Your task to perform on an android device: clear history in the chrome app Image 0: 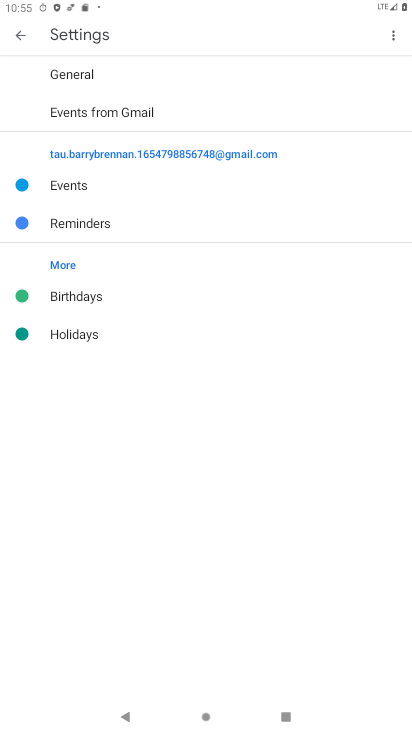
Step 0: click (23, 36)
Your task to perform on an android device: clear history in the chrome app Image 1: 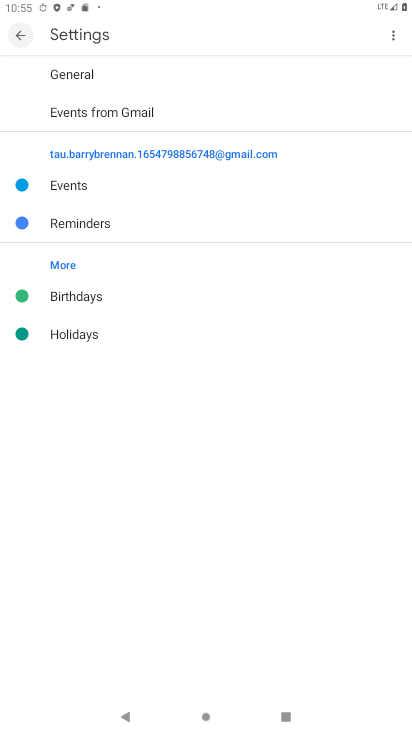
Step 1: click (23, 36)
Your task to perform on an android device: clear history in the chrome app Image 2: 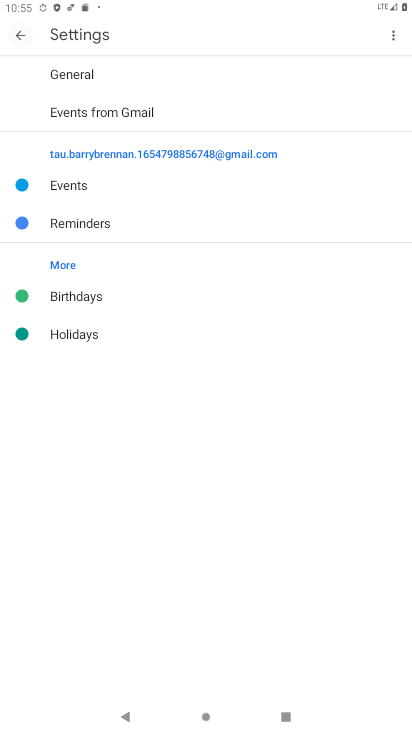
Step 2: click (11, 34)
Your task to perform on an android device: clear history in the chrome app Image 3: 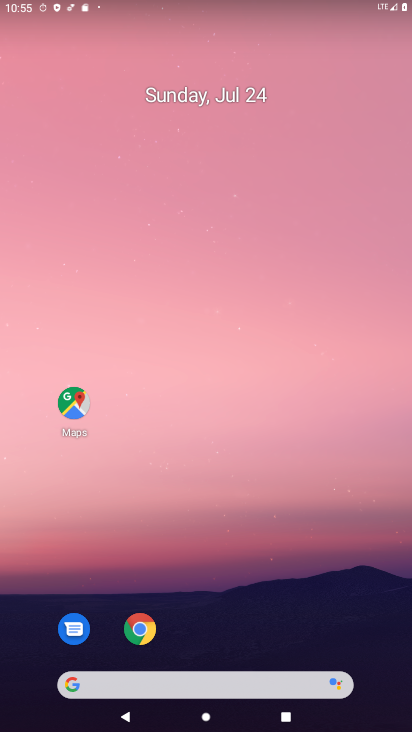
Step 3: click (199, 63)
Your task to perform on an android device: clear history in the chrome app Image 4: 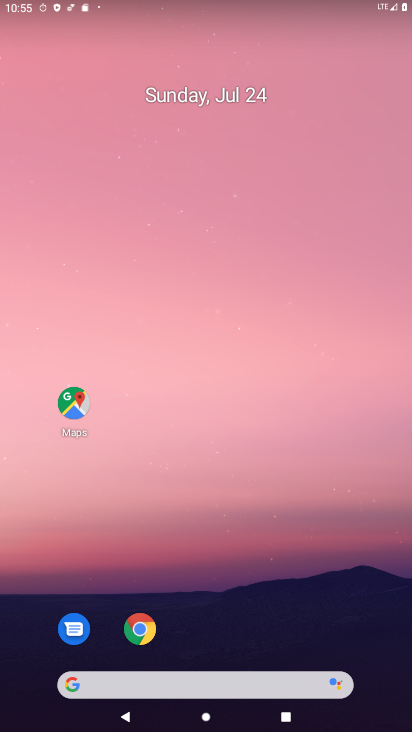
Step 4: drag from (240, 480) to (239, 32)
Your task to perform on an android device: clear history in the chrome app Image 5: 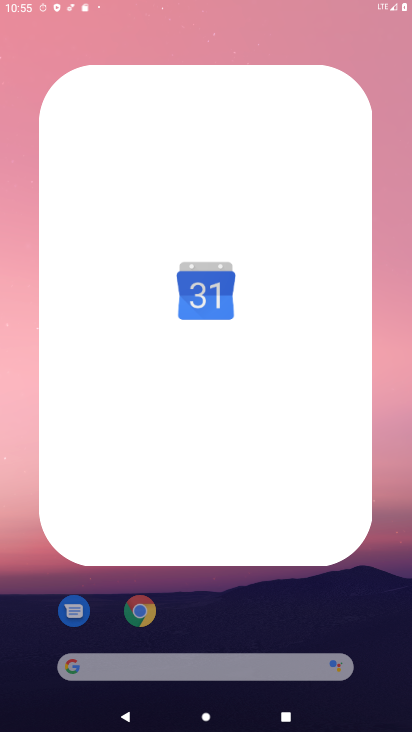
Step 5: drag from (237, 524) to (154, 107)
Your task to perform on an android device: clear history in the chrome app Image 6: 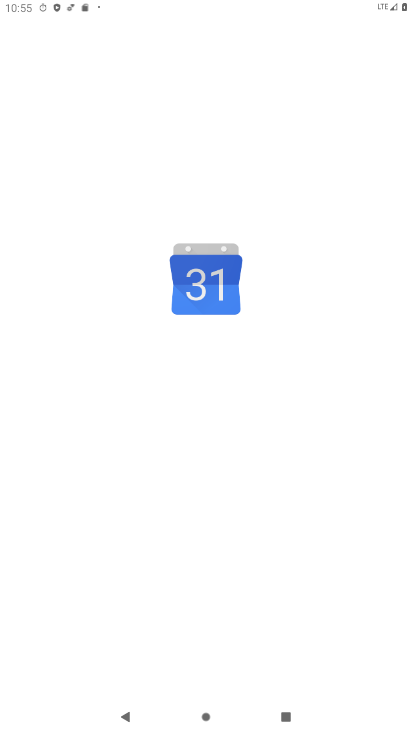
Step 6: drag from (334, 600) to (228, 48)
Your task to perform on an android device: clear history in the chrome app Image 7: 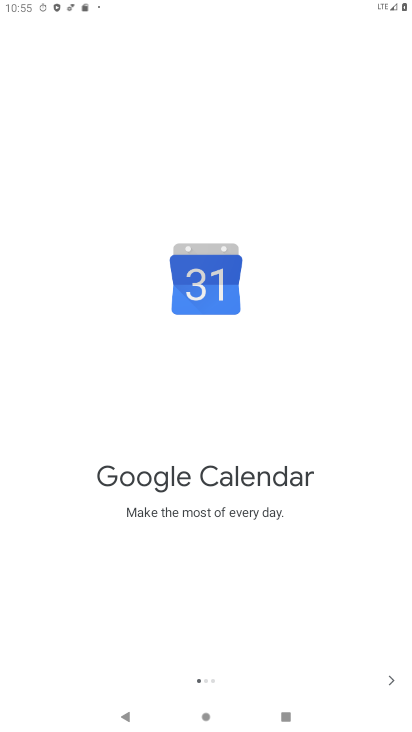
Step 7: click (393, 680)
Your task to perform on an android device: clear history in the chrome app Image 8: 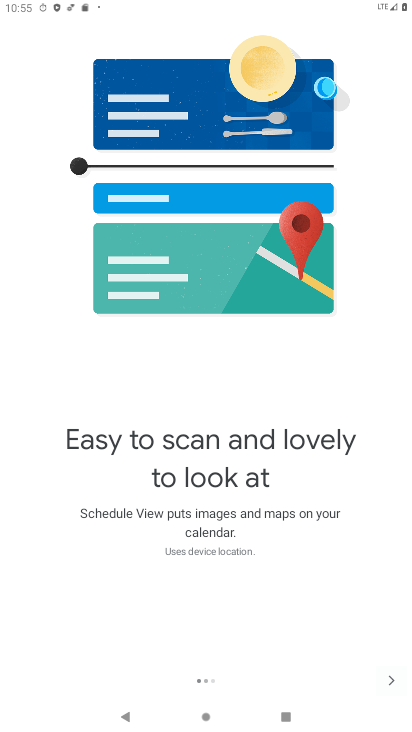
Step 8: click (394, 679)
Your task to perform on an android device: clear history in the chrome app Image 9: 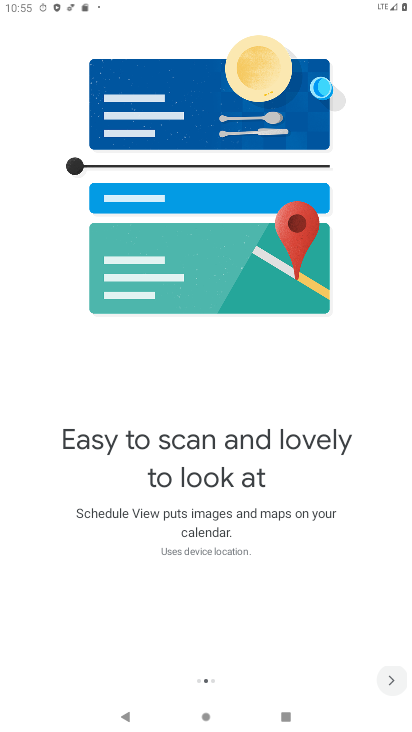
Step 9: click (395, 681)
Your task to perform on an android device: clear history in the chrome app Image 10: 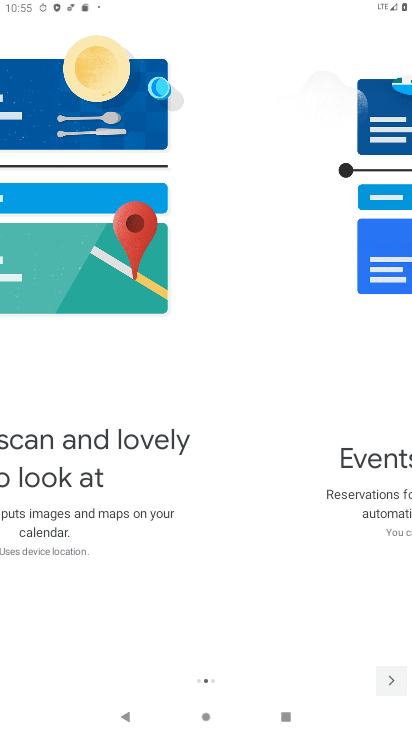
Step 10: click (395, 681)
Your task to perform on an android device: clear history in the chrome app Image 11: 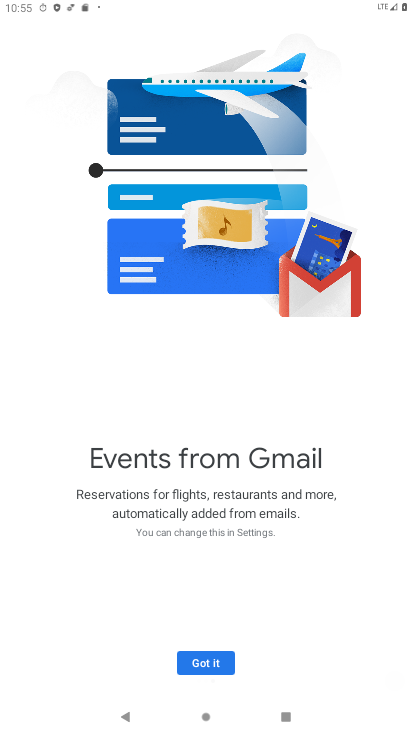
Step 11: click (394, 682)
Your task to perform on an android device: clear history in the chrome app Image 12: 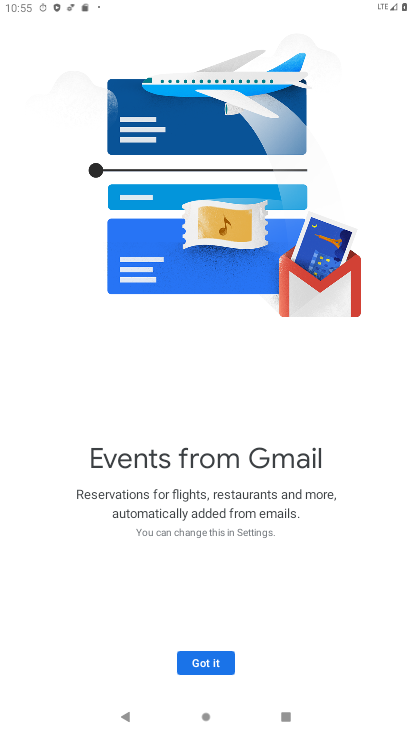
Step 12: click (391, 679)
Your task to perform on an android device: clear history in the chrome app Image 13: 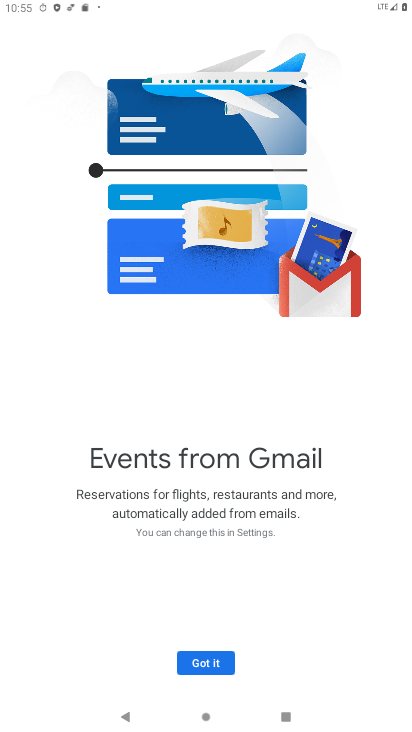
Step 13: click (387, 676)
Your task to perform on an android device: clear history in the chrome app Image 14: 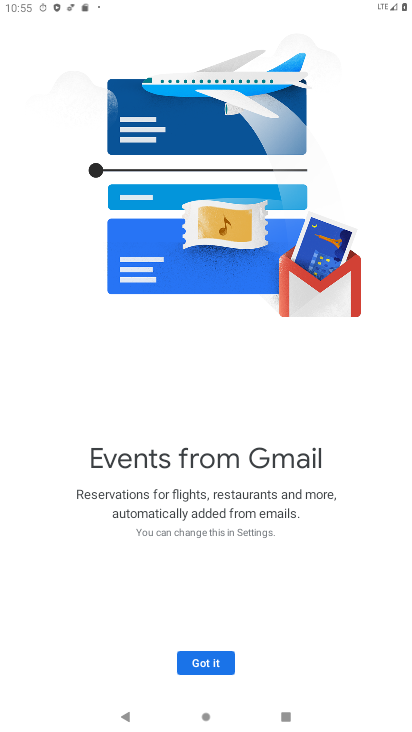
Step 14: click (213, 664)
Your task to perform on an android device: clear history in the chrome app Image 15: 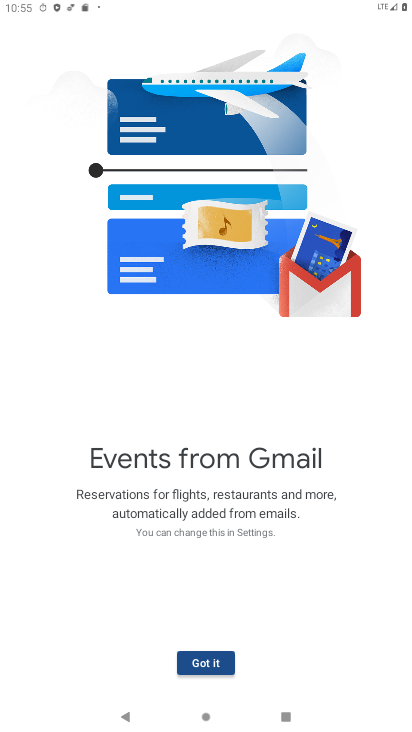
Step 15: click (212, 662)
Your task to perform on an android device: clear history in the chrome app Image 16: 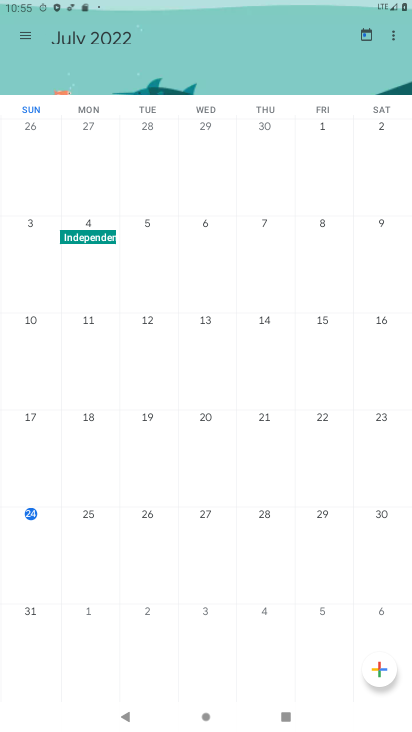
Step 16: press back button
Your task to perform on an android device: clear history in the chrome app Image 17: 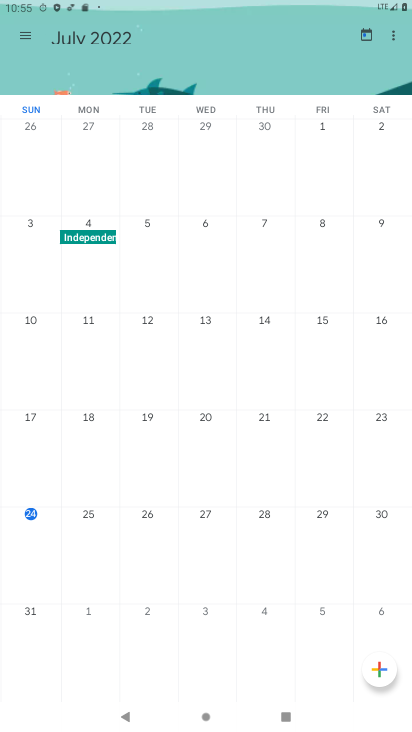
Step 17: press back button
Your task to perform on an android device: clear history in the chrome app Image 18: 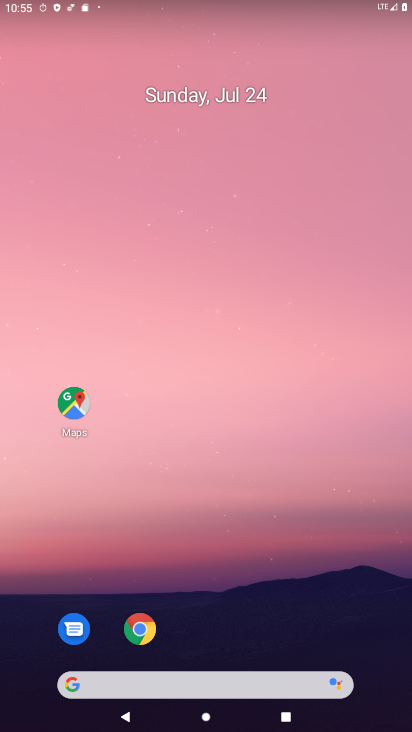
Step 18: drag from (248, 634) to (228, 6)
Your task to perform on an android device: clear history in the chrome app Image 19: 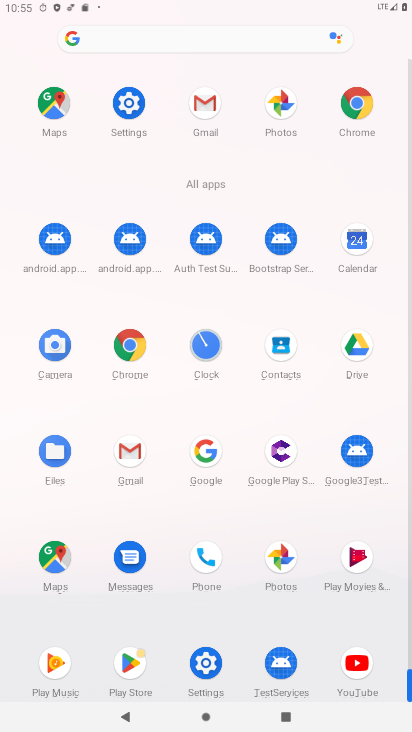
Step 19: click (373, 99)
Your task to perform on an android device: clear history in the chrome app Image 20: 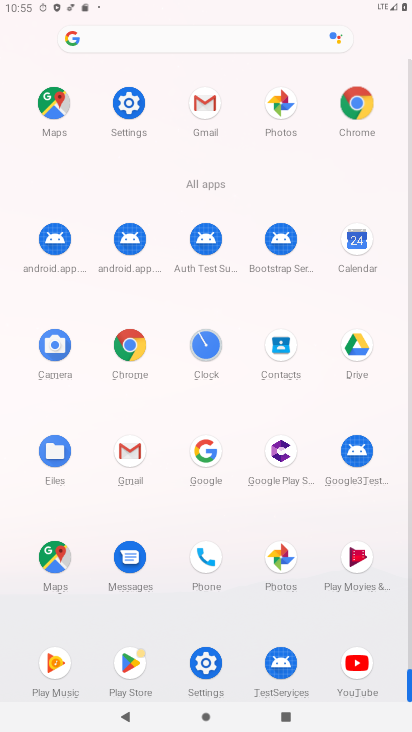
Step 20: click (348, 102)
Your task to perform on an android device: clear history in the chrome app Image 21: 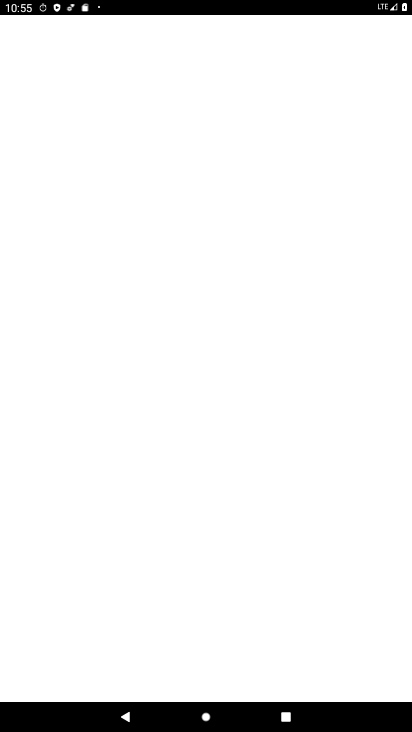
Step 21: click (351, 103)
Your task to perform on an android device: clear history in the chrome app Image 22: 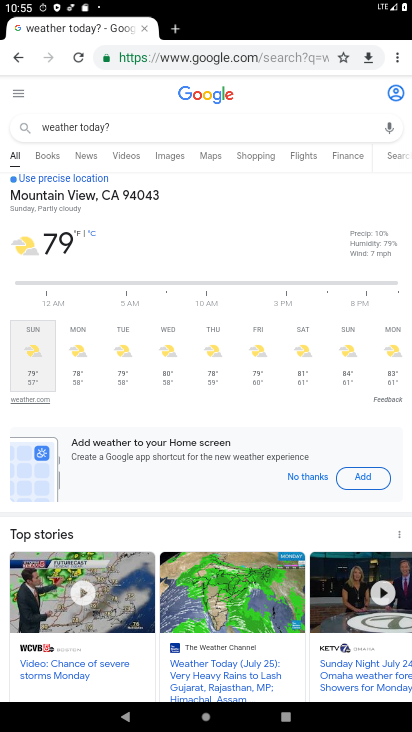
Step 22: drag from (394, 61) to (284, 176)
Your task to perform on an android device: clear history in the chrome app Image 23: 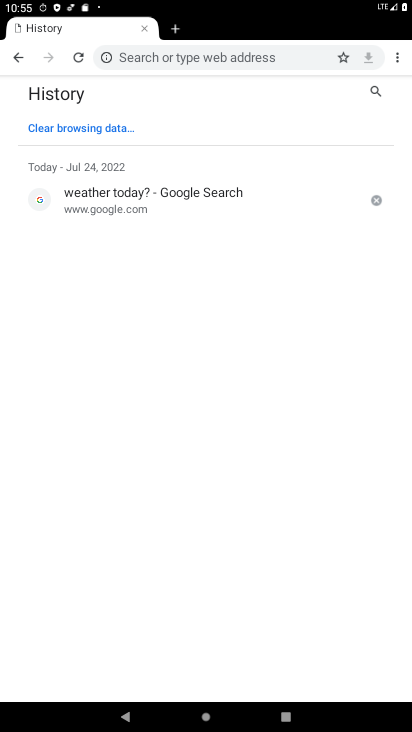
Step 23: click (377, 196)
Your task to perform on an android device: clear history in the chrome app Image 24: 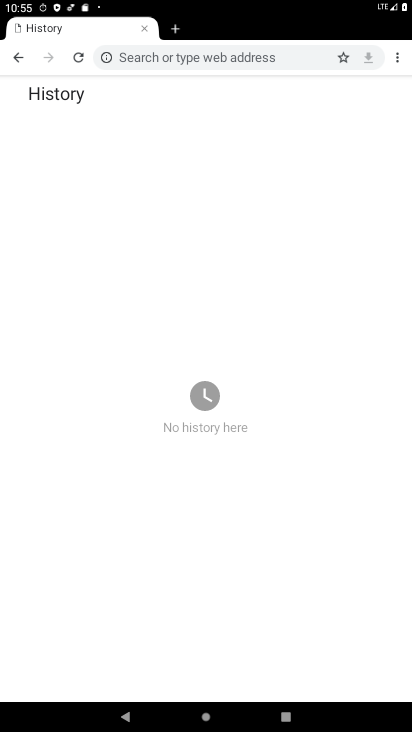
Step 24: click (81, 127)
Your task to perform on an android device: clear history in the chrome app Image 25: 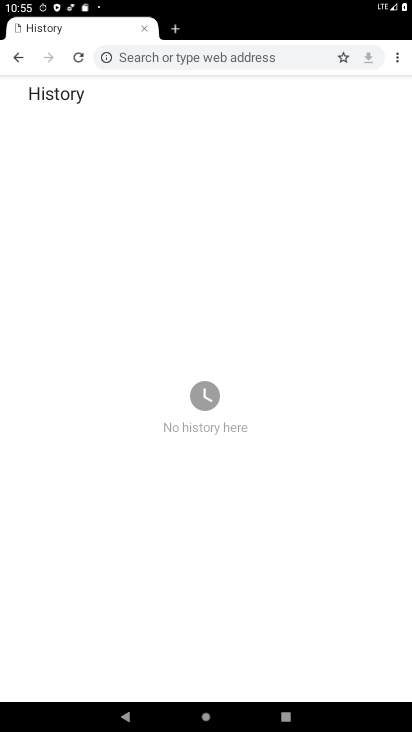
Step 25: task complete